Your task to perform on an android device: delete browsing data in the chrome app Image 0: 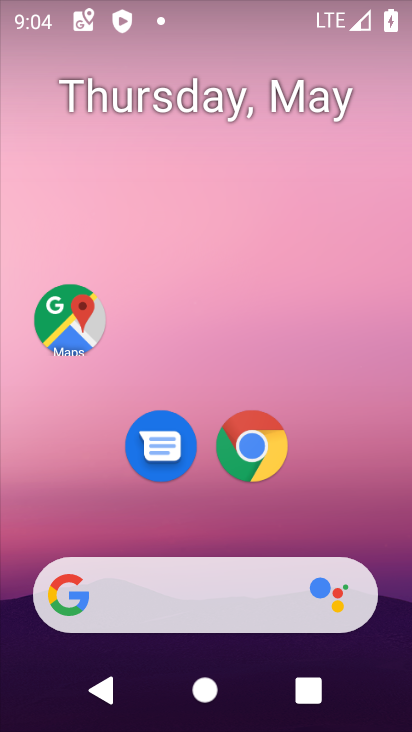
Step 0: click (255, 444)
Your task to perform on an android device: delete browsing data in the chrome app Image 1: 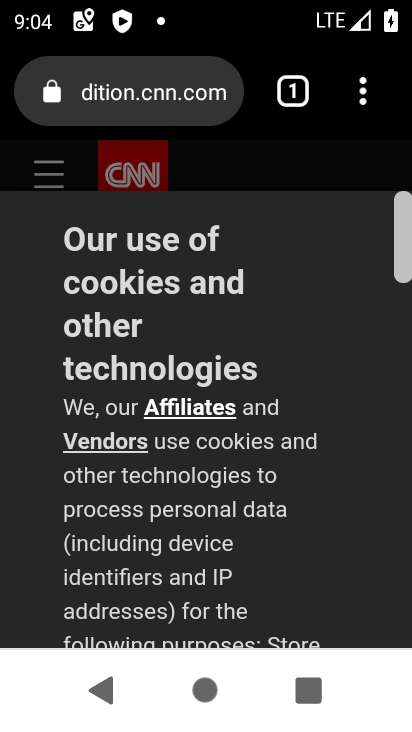
Step 1: click (360, 104)
Your task to perform on an android device: delete browsing data in the chrome app Image 2: 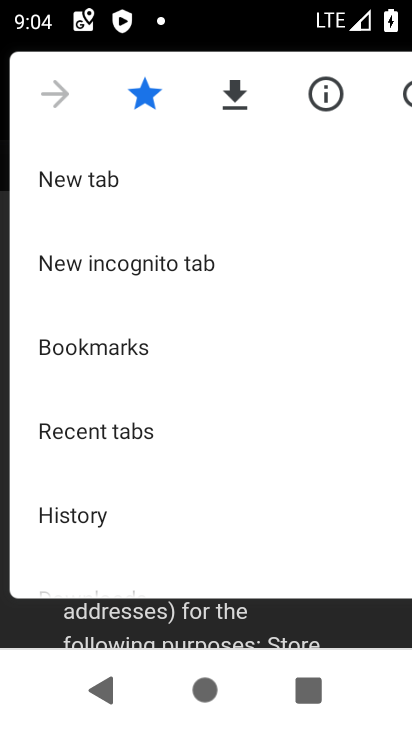
Step 2: drag from (196, 480) to (232, 106)
Your task to perform on an android device: delete browsing data in the chrome app Image 3: 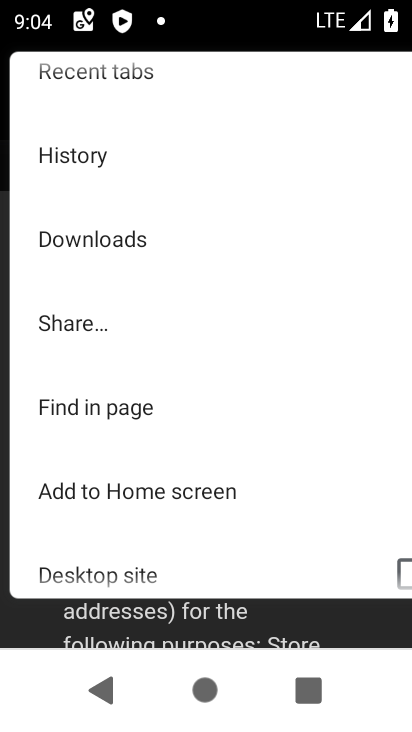
Step 3: click (72, 154)
Your task to perform on an android device: delete browsing data in the chrome app Image 4: 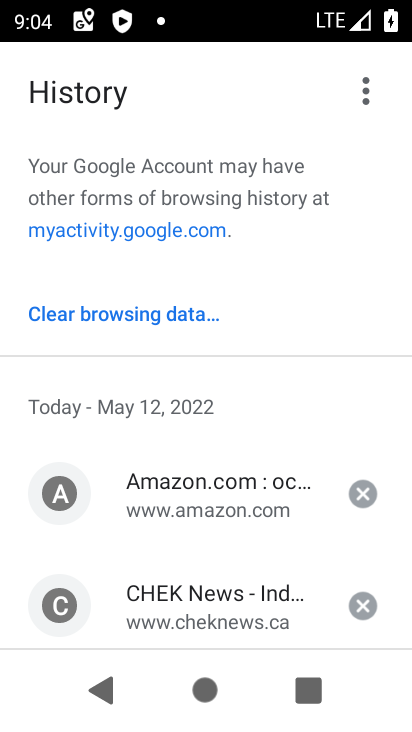
Step 4: click (88, 313)
Your task to perform on an android device: delete browsing data in the chrome app Image 5: 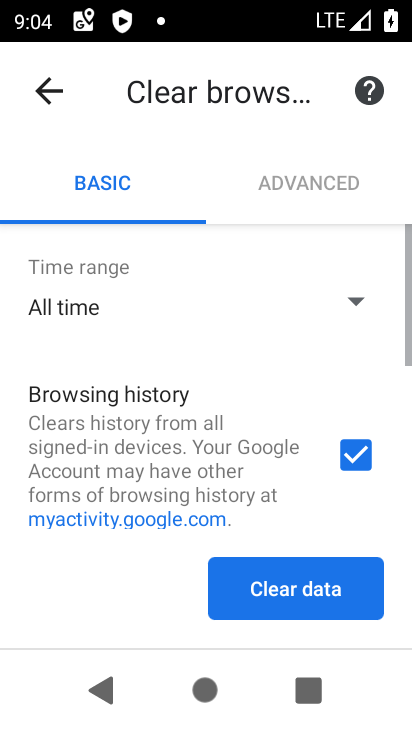
Step 5: drag from (255, 509) to (262, 167)
Your task to perform on an android device: delete browsing data in the chrome app Image 6: 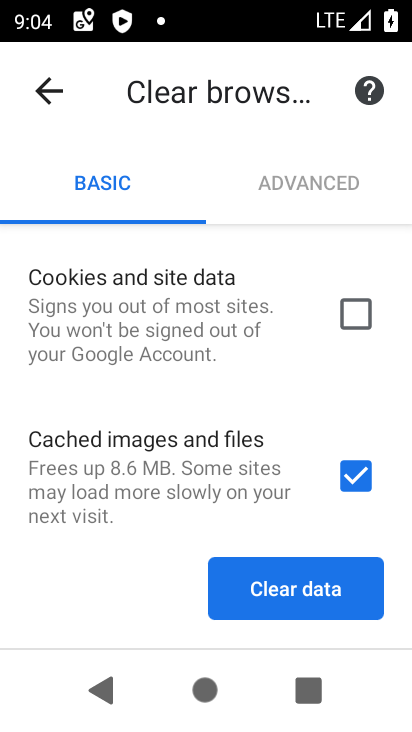
Step 6: click (354, 475)
Your task to perform on an android device: delete browsing data in the chrome app Image 7: 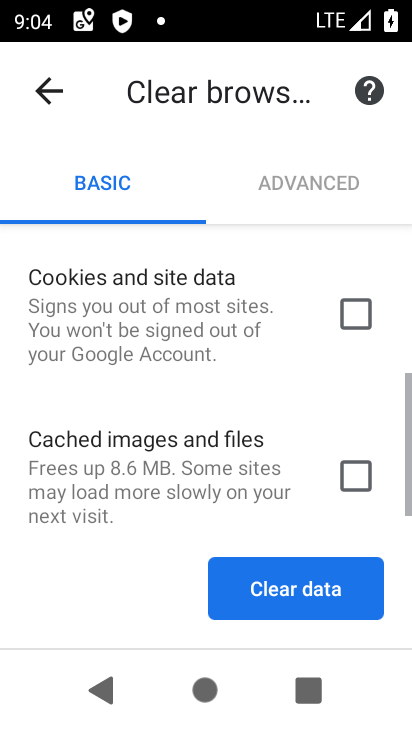
Step 7: click (302, 610)
Your task to perform on an android device: delete browsing data in the chrome app Image 8: 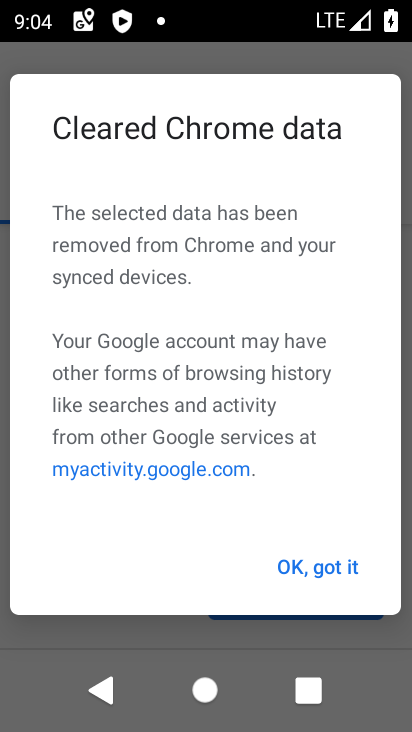
Step 8: click (315, 571)
Your task to perform on an android device: delete browsing data in the chrome app Image 9: 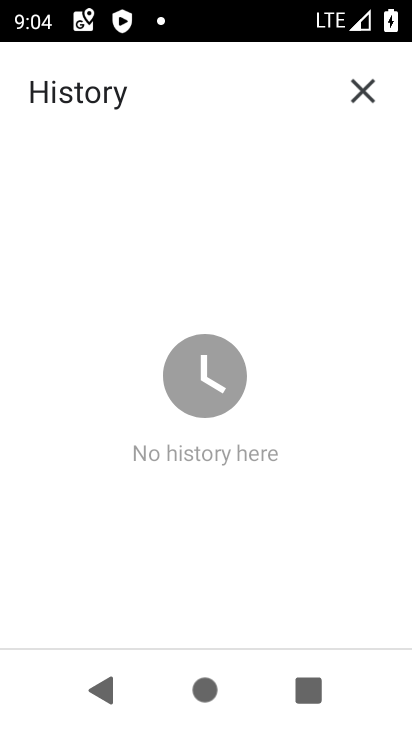
Step 9: task complete